Your task to perform on an android device: remove spam from my inbox in the gmail app Image 0: 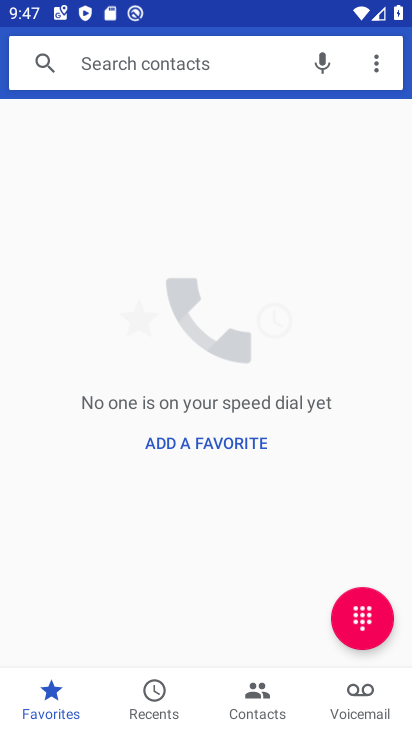
Step 0: press home button
Your task to perform on an android device: remove spam from my inbox in the gmail app Image 1: 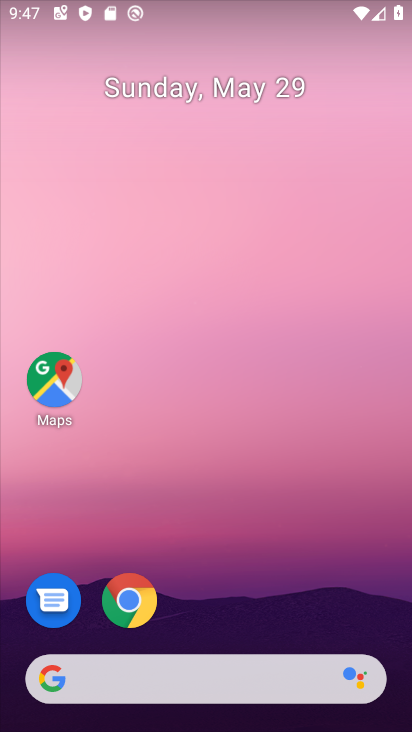
Step 1: drag from (200, 728) to (184, 6)
Your task to perform on an android device: remove spam from my inbox in the gmail app Image 2: 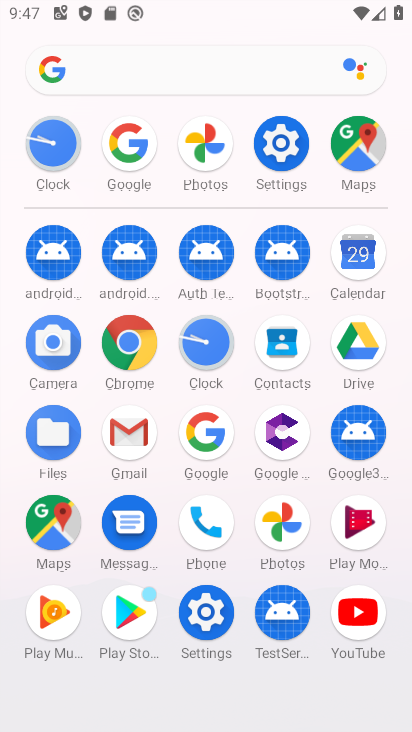
Step 2: click (128, 442)
Your task to perform on an android device: remove spam from my inbox in the gmail app Image 3: 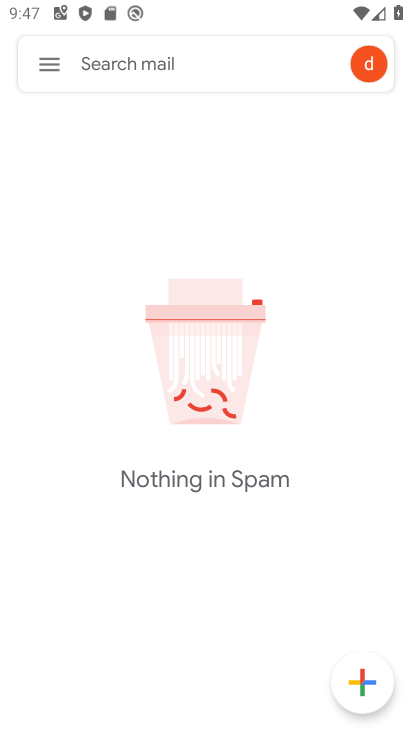
Step 3: click (49, 65)
Your task to perform on an android device: remove spam from my inbox in the gmail app Image 4: 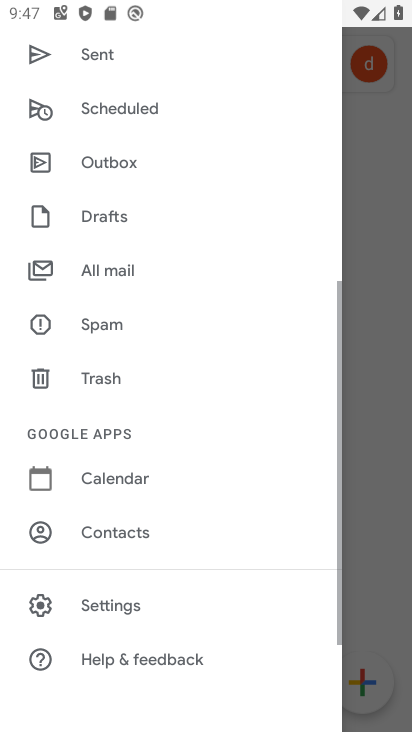
Step 4: drag from (148, 123) to (149, 580)
Your task to perform on an android device: remove spam from my inbox in the gmail app Image 5: 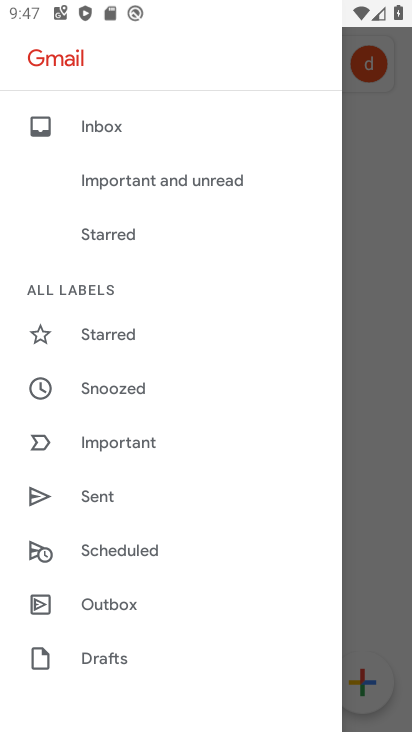
Step 5: click (97, 127)
Your task to perform on an android device: remove spam from my inbox in the gmail app Image 6: 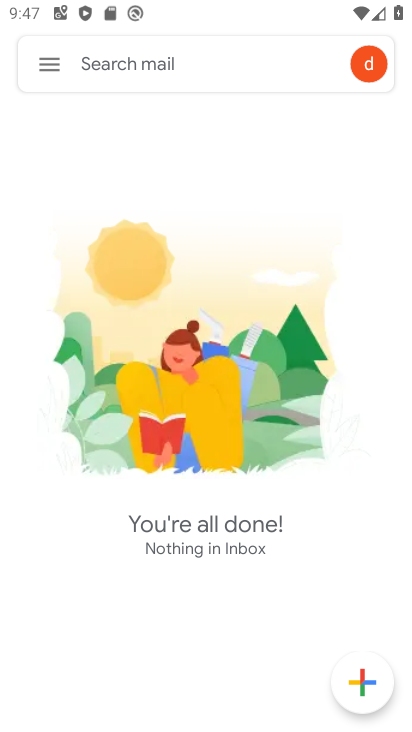
Step 6: task complete